Your task to perform on an android device: Open maps Image 0: 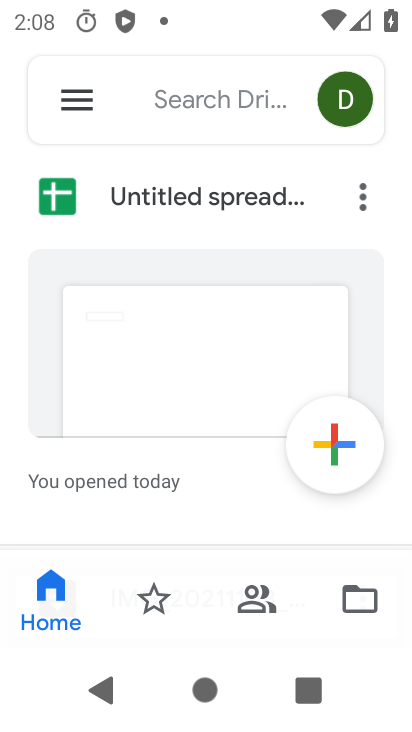
Step 0: press home button
Your task to perform on an android device: Open maps Image 1: 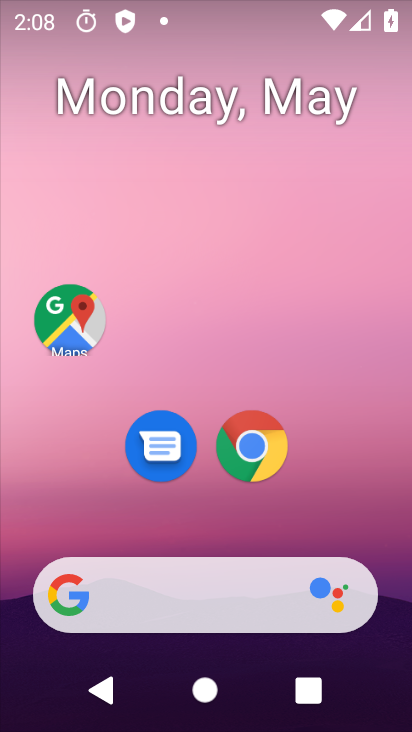
Step 1: click (84, 345)
Your task to perform on an android device: Open maps Image 2: 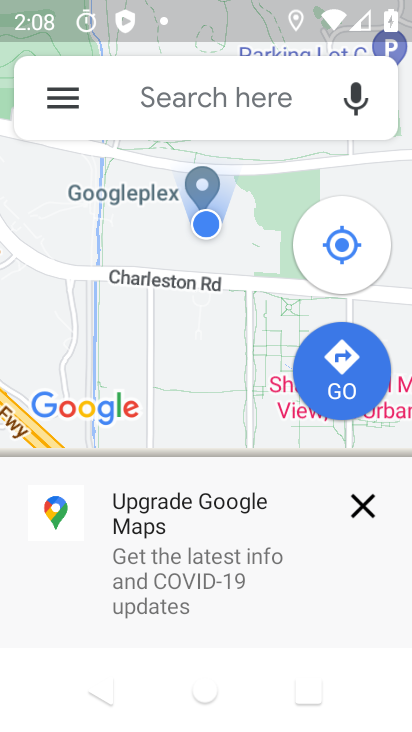
Step 2: task complete